Your task to perform on an android device: Open Youtube and go to "Your channel" Image 0: 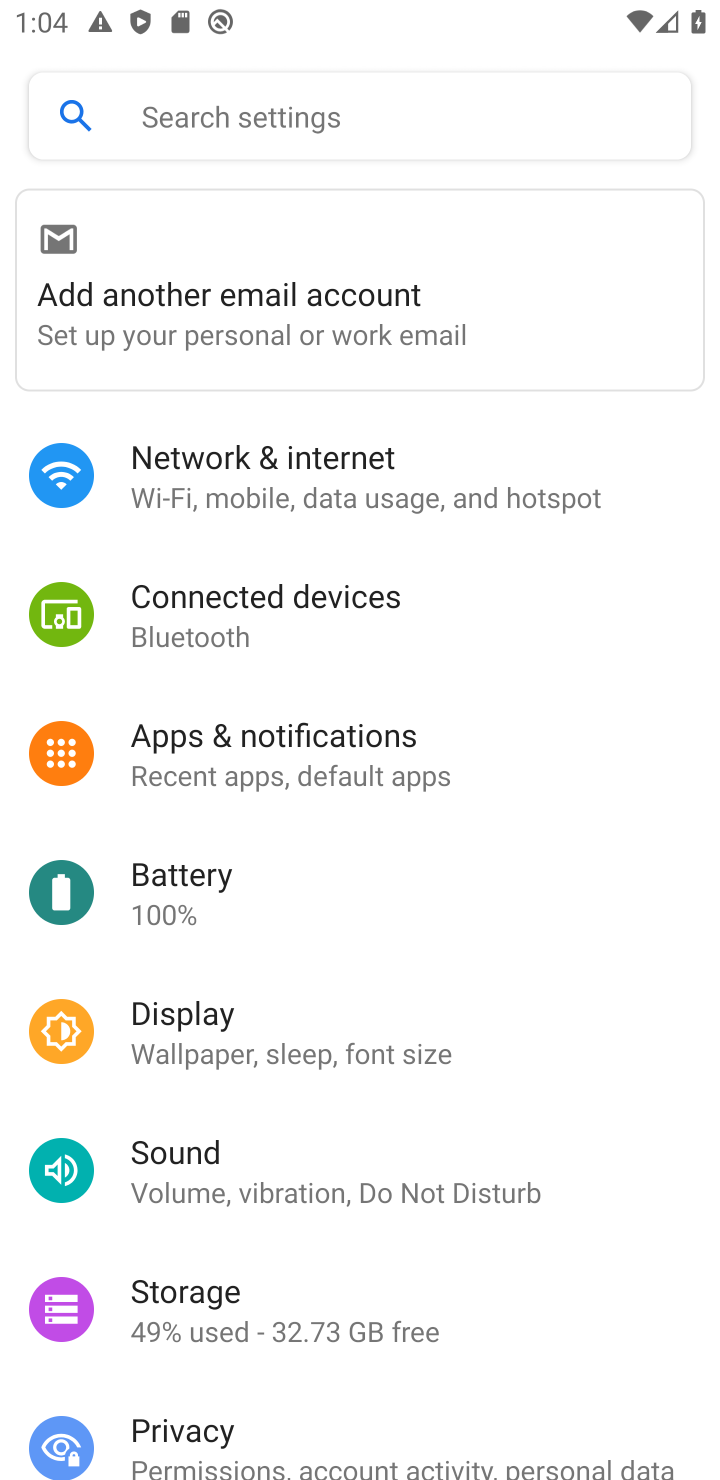
Step 0: press home button
Your task to perform on an android device: Open Youtube and go to "Your channel" Image 1: 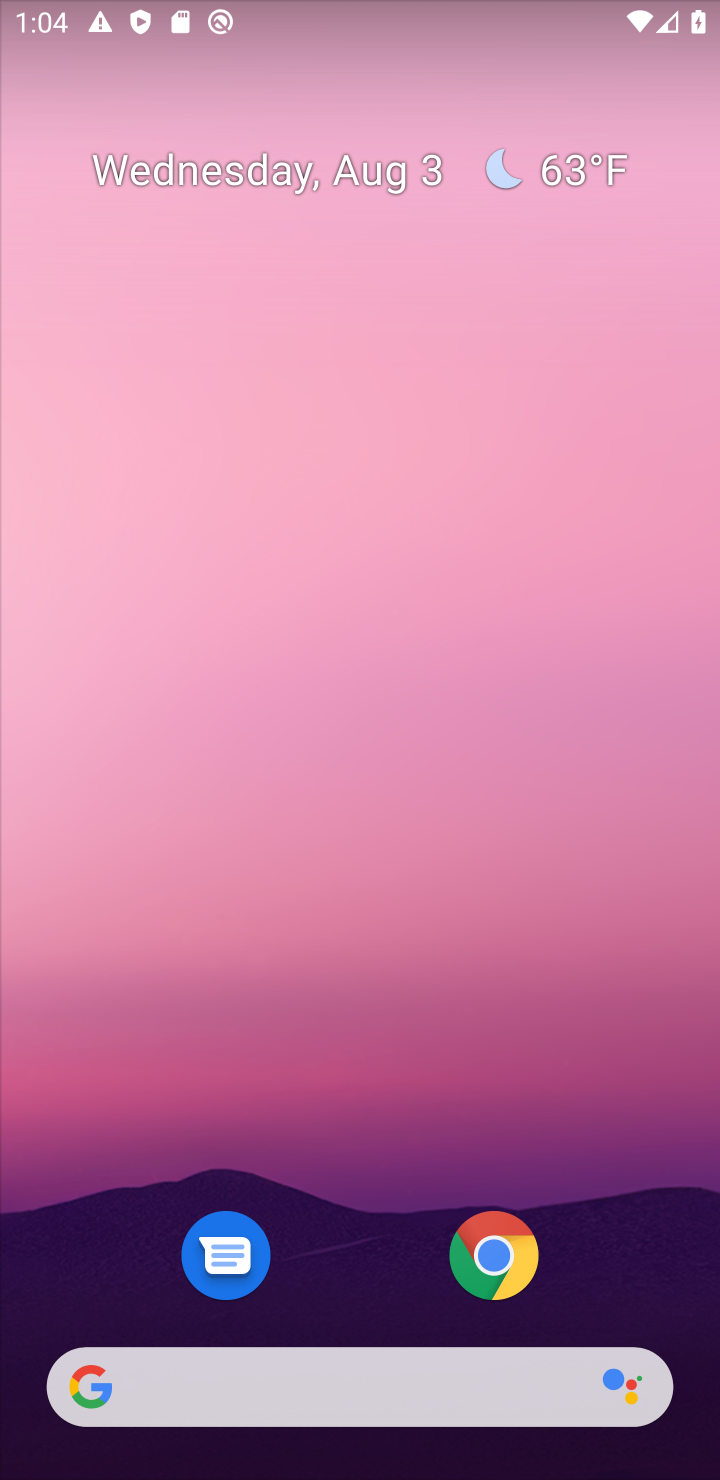
Step 1: drag from (600, 1238) to (428, 271)
Your task to perform on an android device: Open Youtube and go to "Your channel" Image 2: 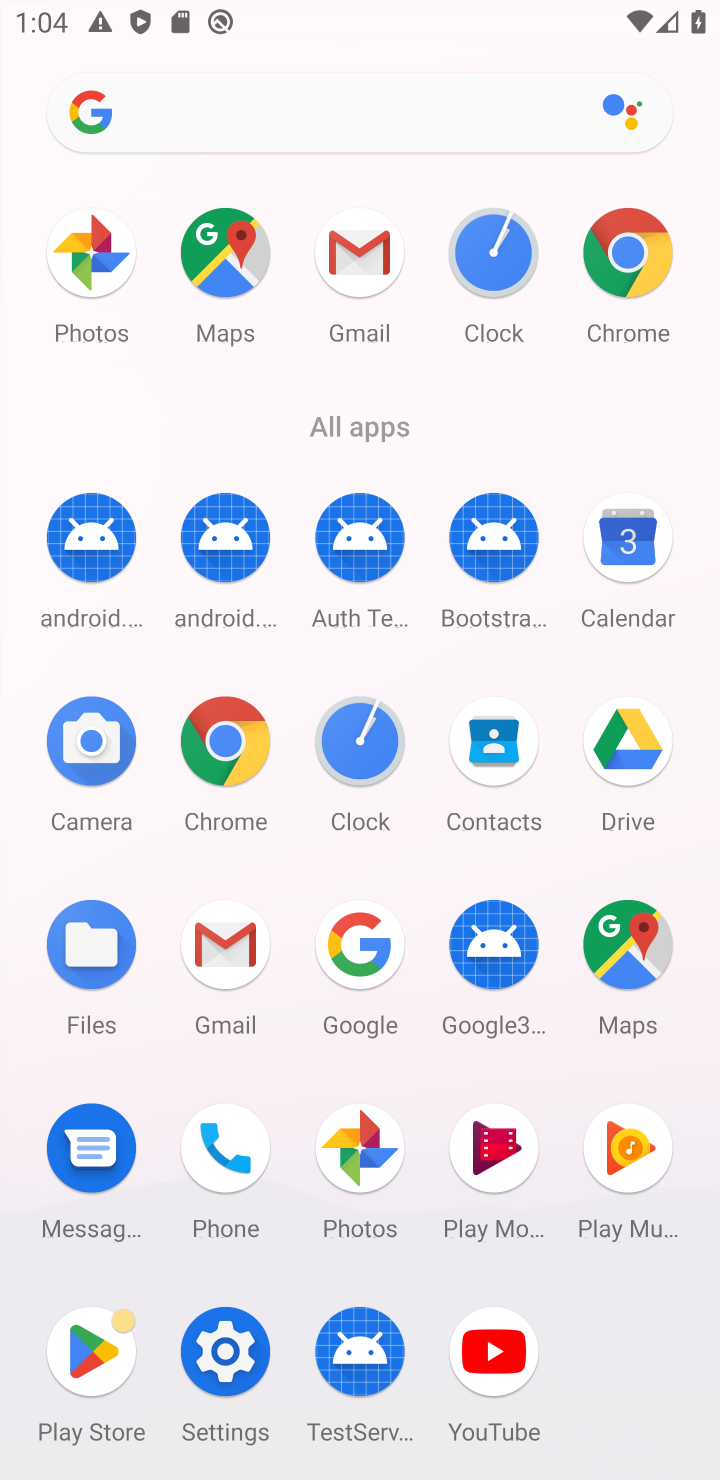
Step 2: click (472, 1364)
Your task to perform on an android device: Open Youtube and go to "Your channel" Image 3: 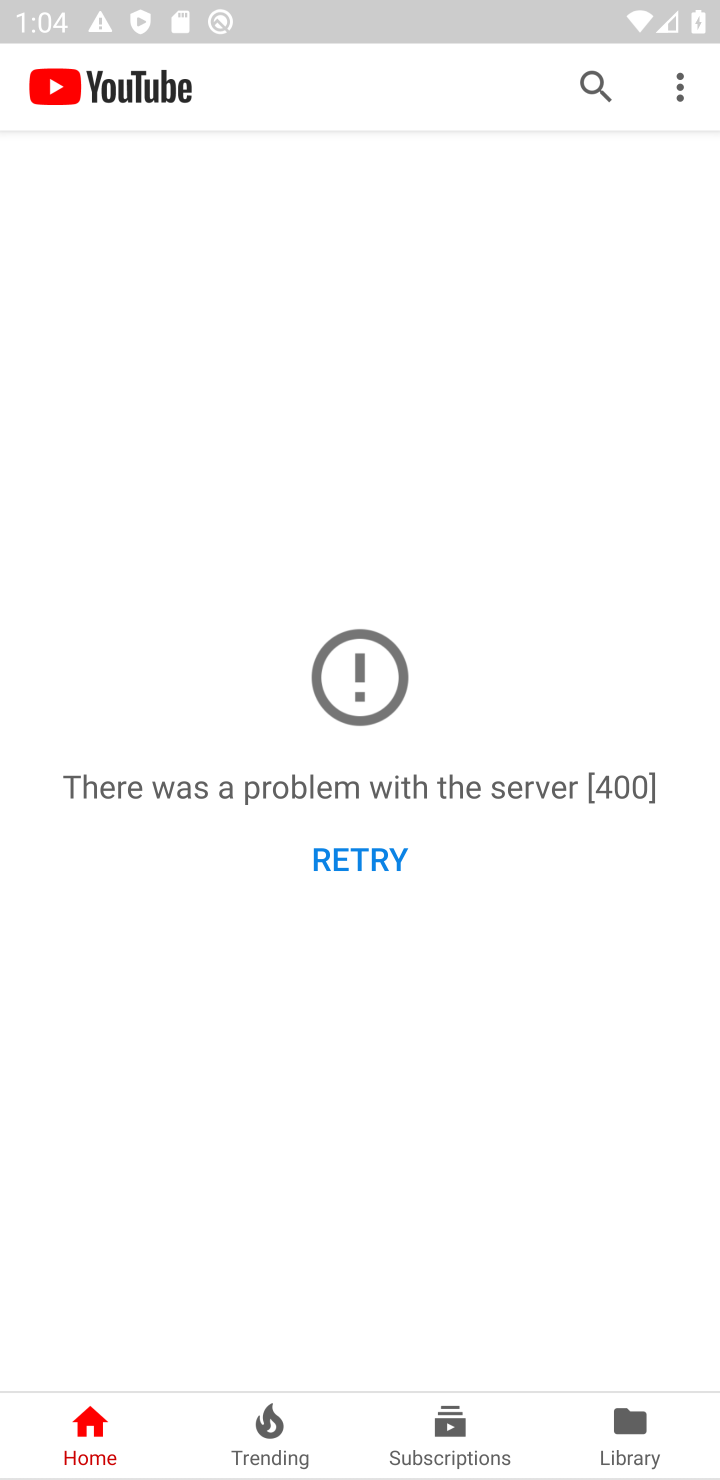
Step 3: click (677, 101)
Your task to perform on an android device: Open Youtube and go to "Your channel" Image 4: 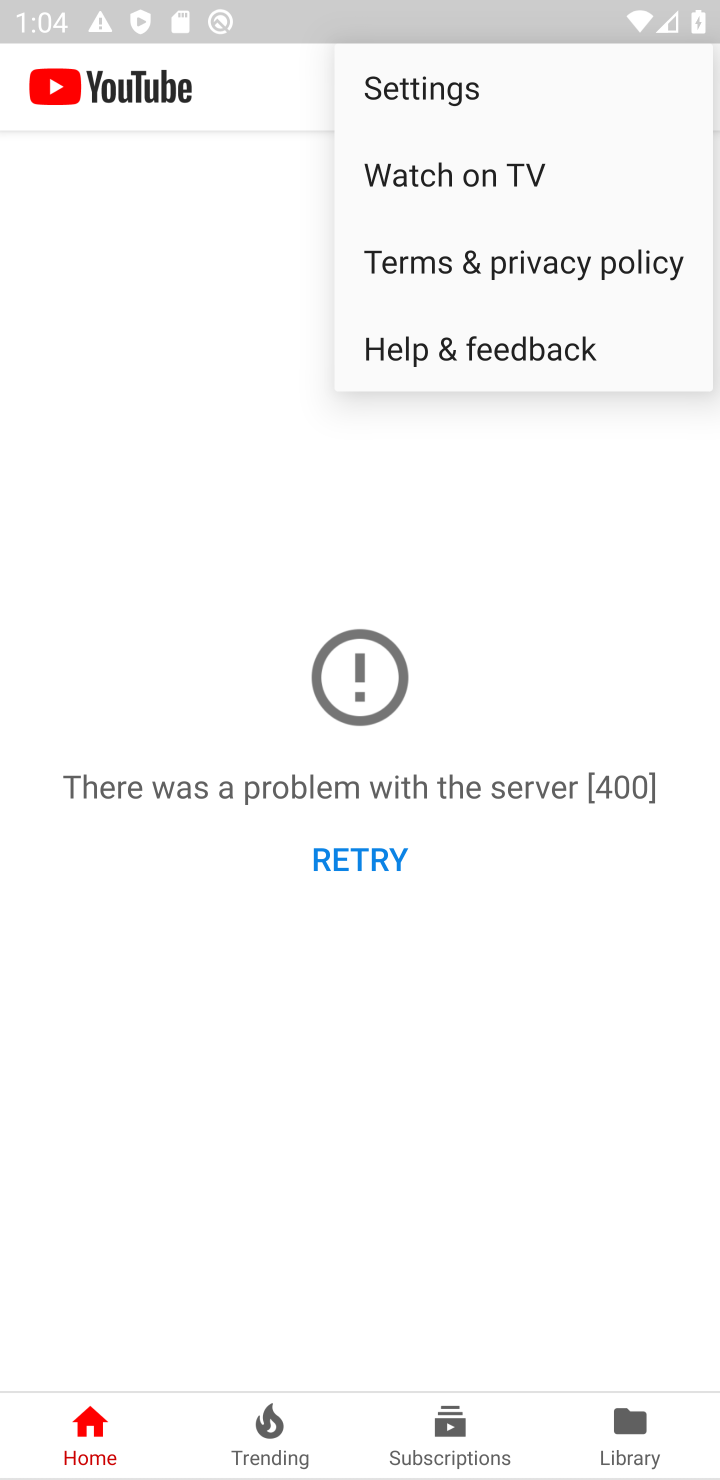
Step 4: task complete